Your task to perform on an android device: Go to internet settings Image 0: 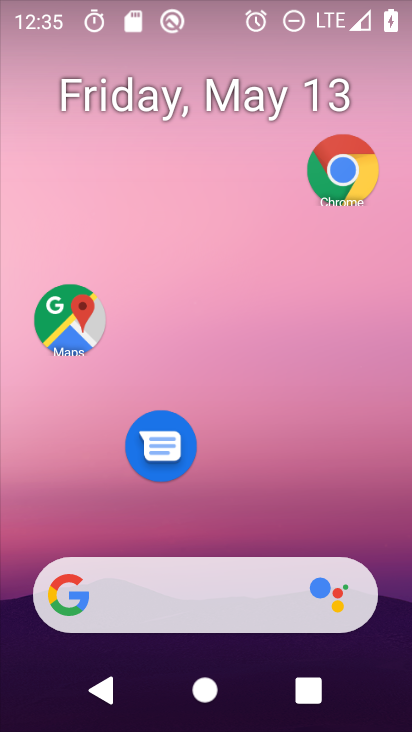
Step 0: drag from (241, 584) to (299, 2)
Your task to perform on an android device: Go to internet settings Image 1: 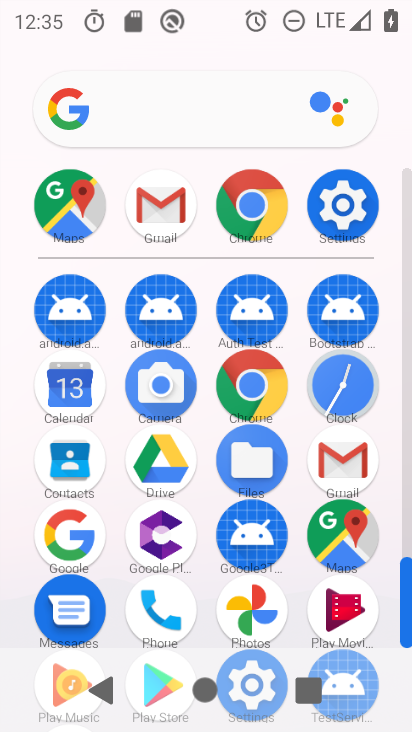
Step 1: click (340, 206)
Your task to perform on an android device: Go to internet settings Image 2: 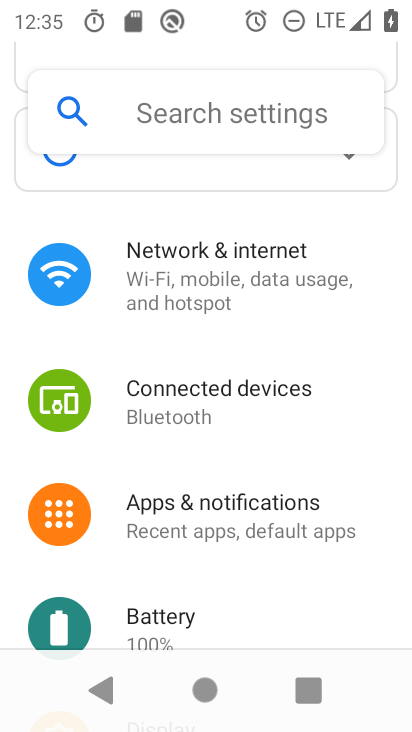
Step 2: click (290, 267)
Your task to perform on an android device: Go to internet settings Image 3: 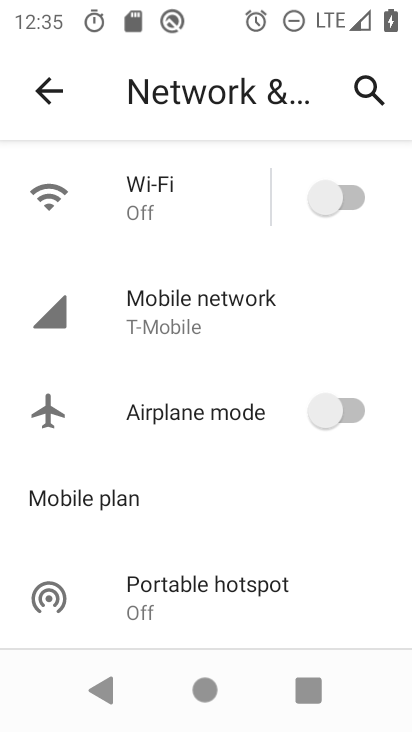
Step 3: task complete